Your task to perform on an android device: add a contact in the contacts app Image 0: 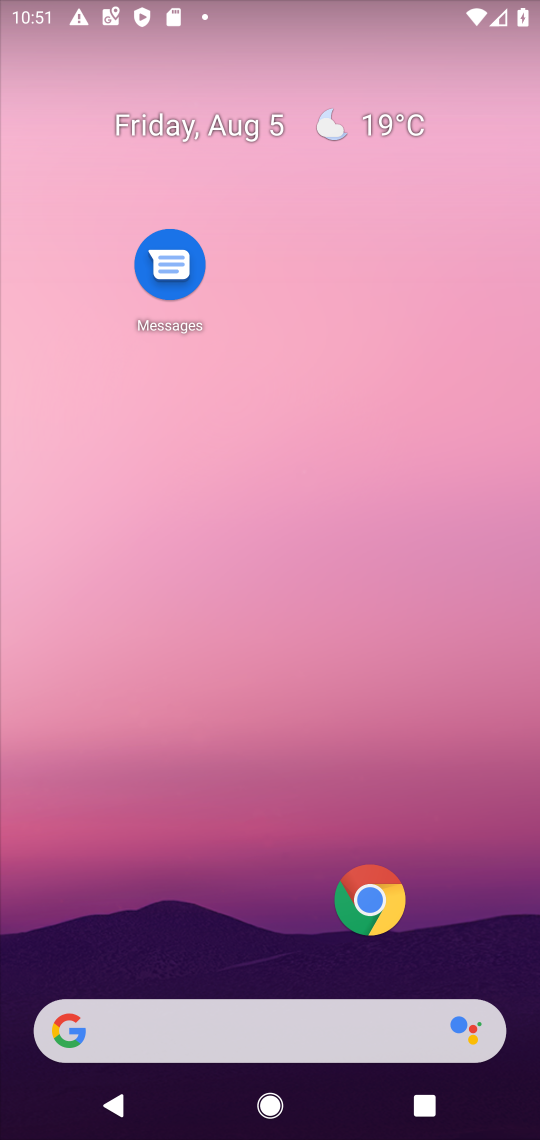
Step 0: click (229, 341)
Your task to perform on an android device: add a contact in the contacts app Image 1: 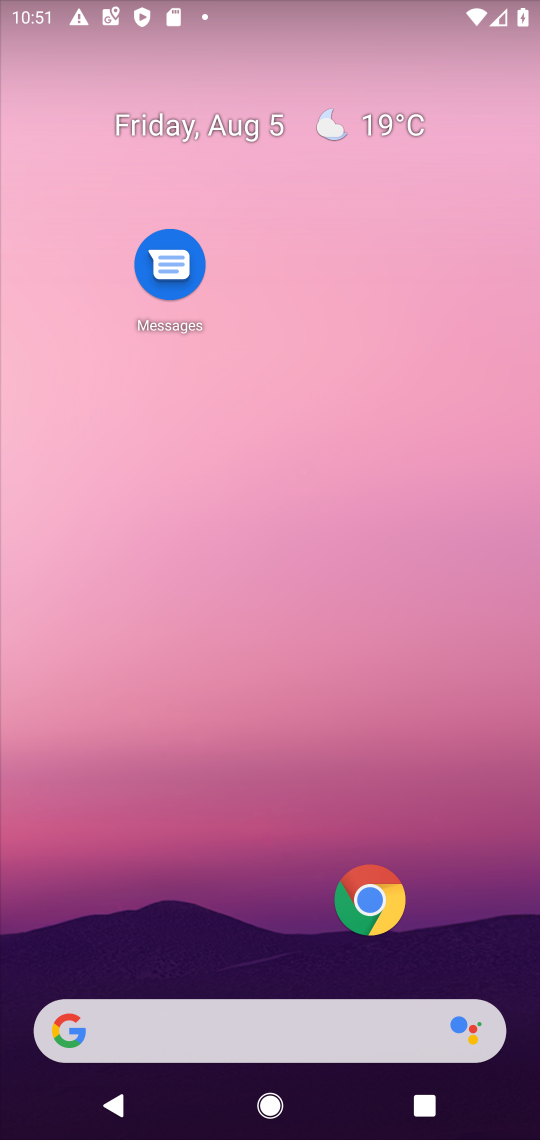
Step 1: press home button
Your task to perform on an android device: add a contact in the contacts app Image 2: 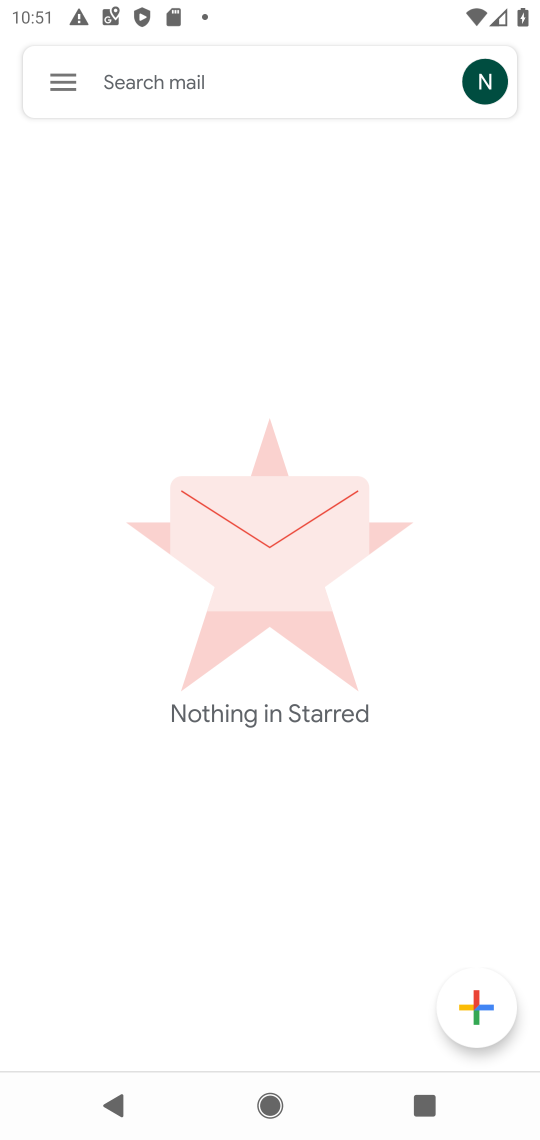
Step 2: press home button
Your task to perform on an android device: add a contact in the contacts app Image 3: 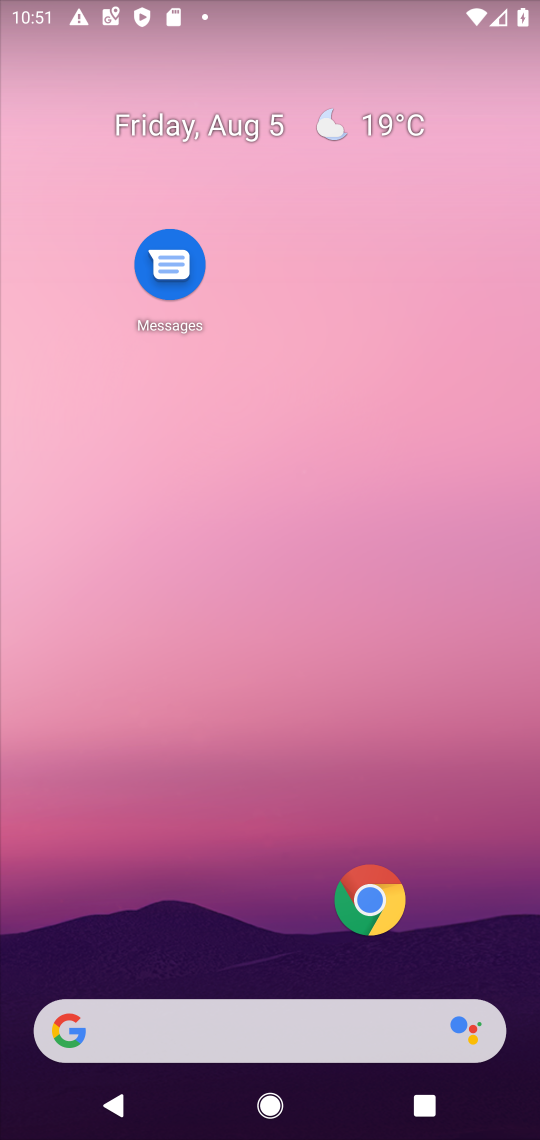
Step 3: drag from (196, 990) to (192, 229)
Your task to perform on an android device: add a contact in the contacts app Image 4: 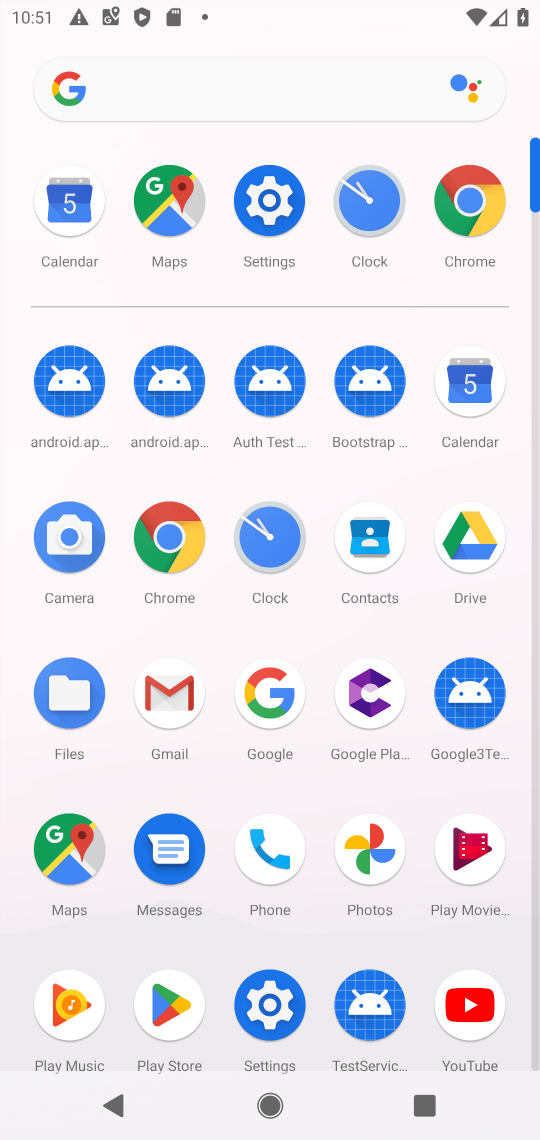
Step 4: click (394, 559)
Your task to perform on an android device: add a contact in the contacts app Image 5: 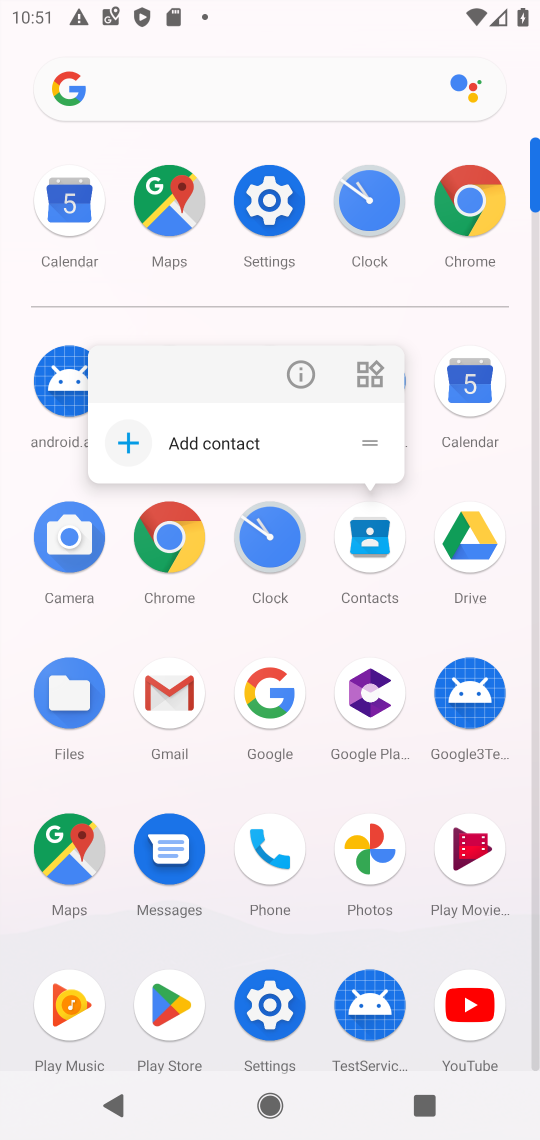
Step 5: click (394, 559)
Your task to perform on an android device: add a contact in the contacts app Image 6: 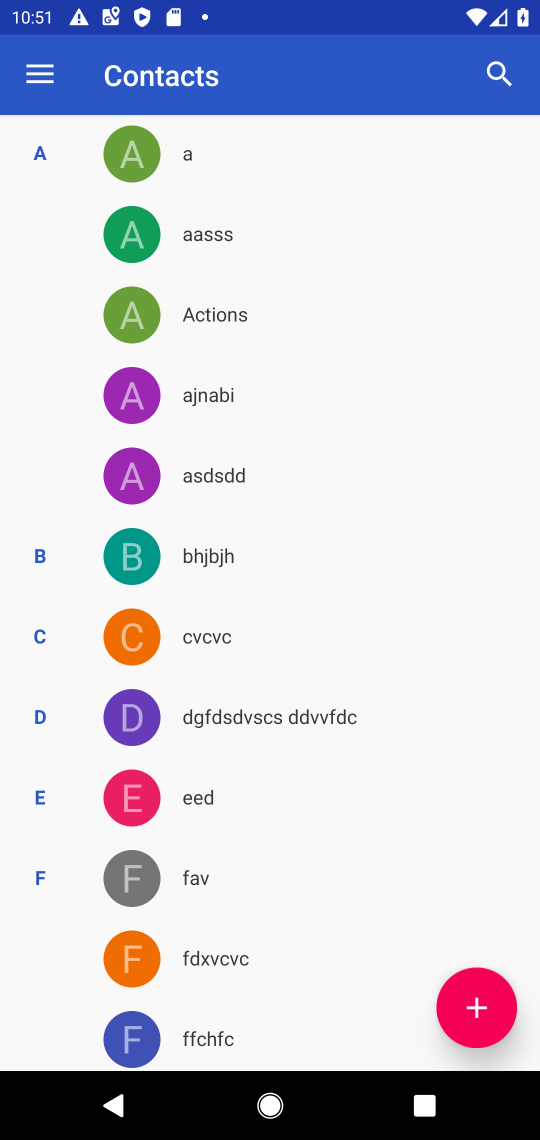
Step 6: click (473, 1019)
Your task to perform on an android device: add a contact in the contacts app Image 7: 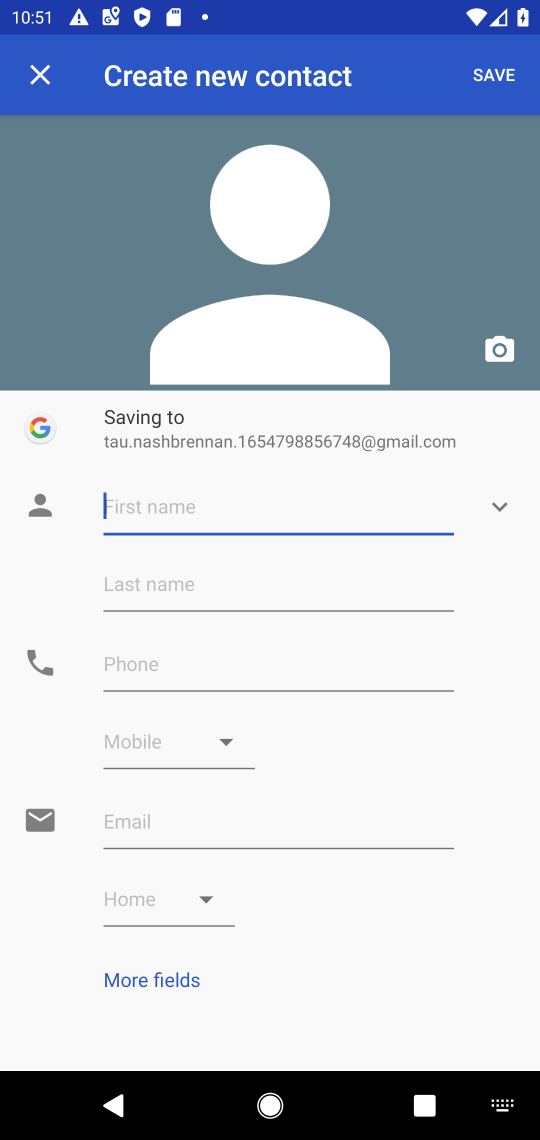
Step 7: type "DD"
Your task to perform on an android device: add a contact in the contacts app Image 8: 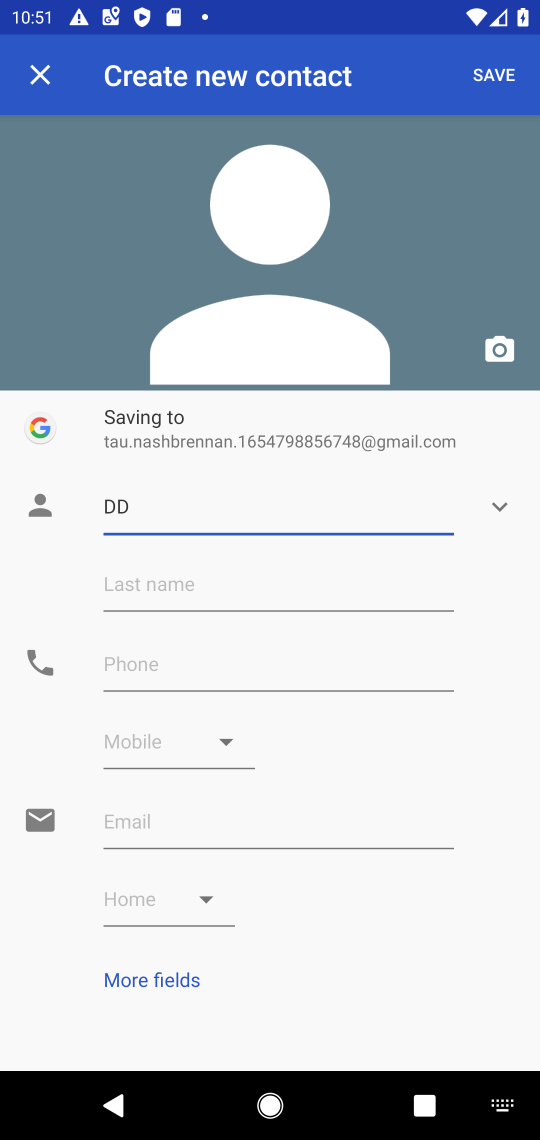
Step 8: click (142, 675)
Your task to perform on an android device: add a contact in the contacts app Image 9: 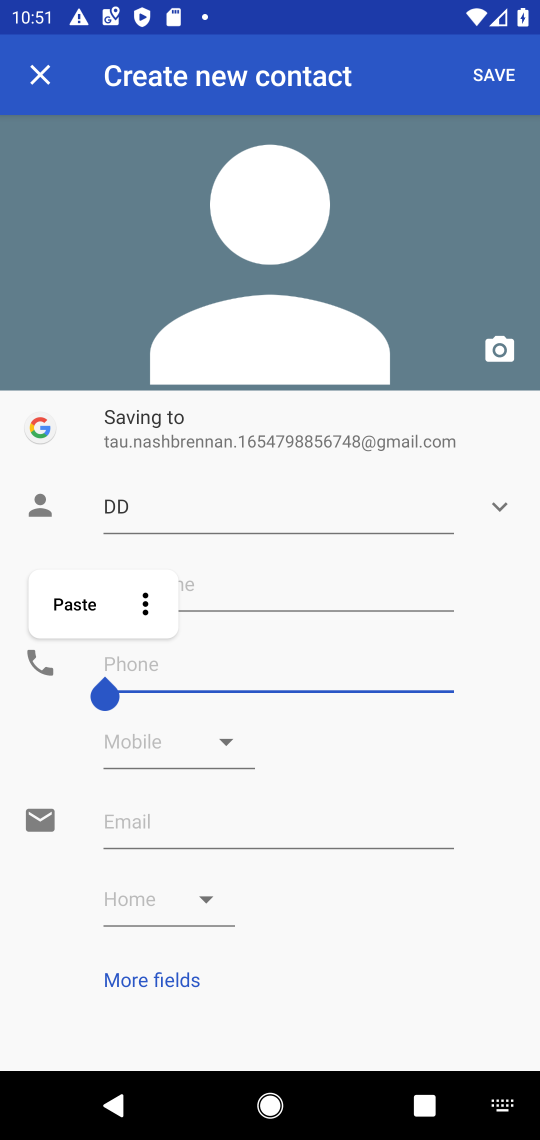
Step 9: type "23"
Your task to perform on an android device: add a contact in the contacts app Image 10: 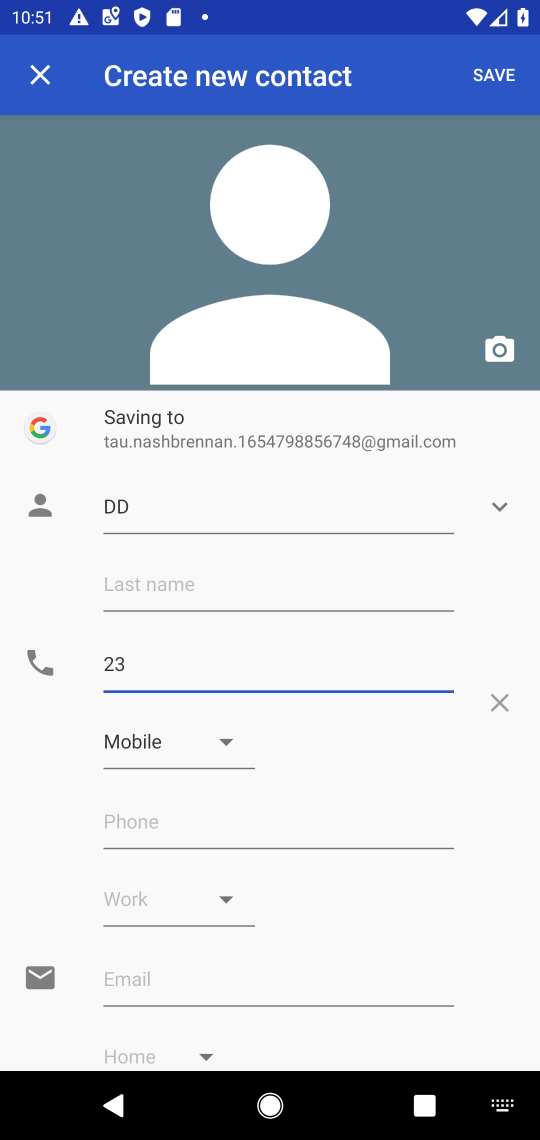
Step 10: click (491, 73)
Your task to perform on an android device: add a contact in the contacts app Image 11: 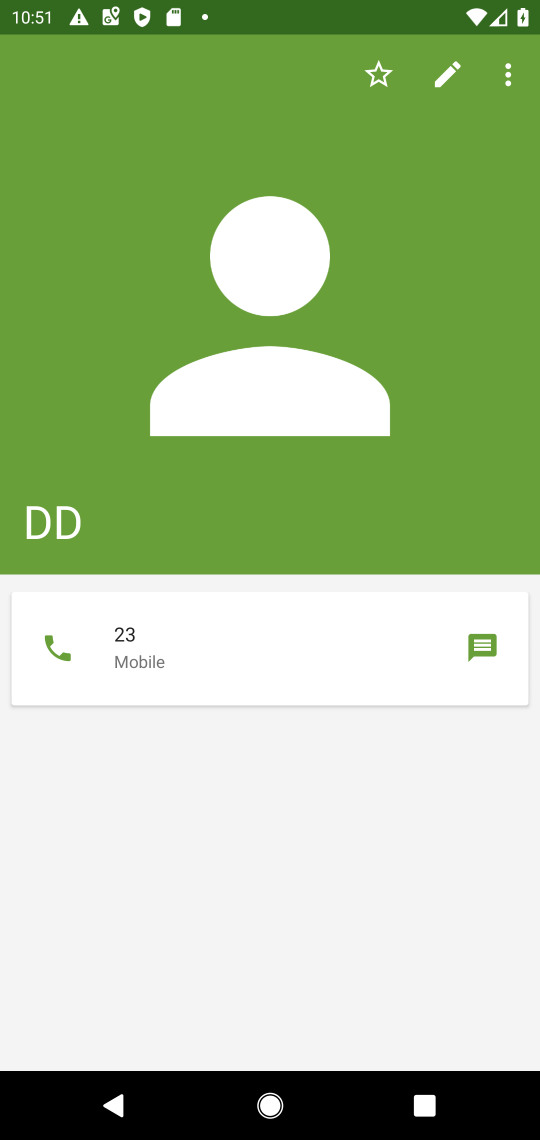
Step 11: task complete